Your task to perform on an android device: open sync settings in chrome Image 0: 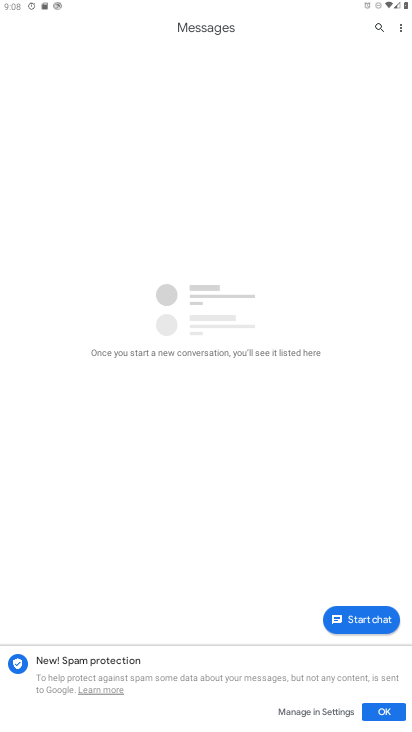
Step 0: press home button
Your task to perform on an android device: open sync settings in chrome Image 1: 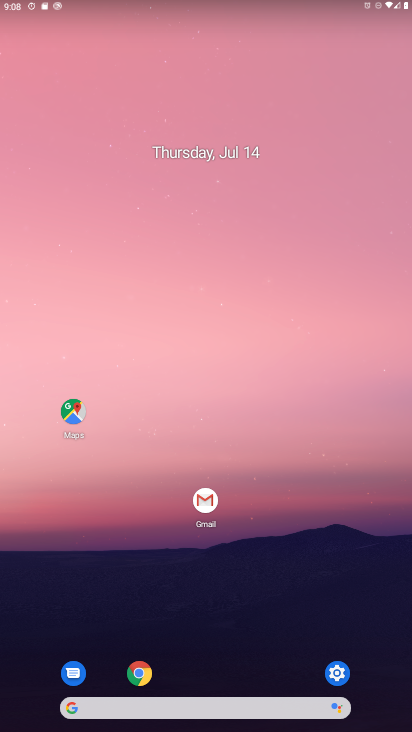
Step 1: click (148, 668)
Your task to perform on an android device: open sync settings in chrome Image 2: 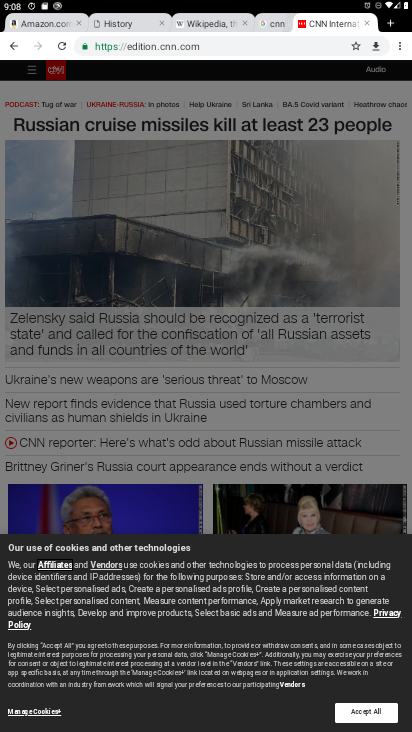
Step 2: click (397, 51)
Your task to perform on an android device: open sync settings in chrome Image 3: 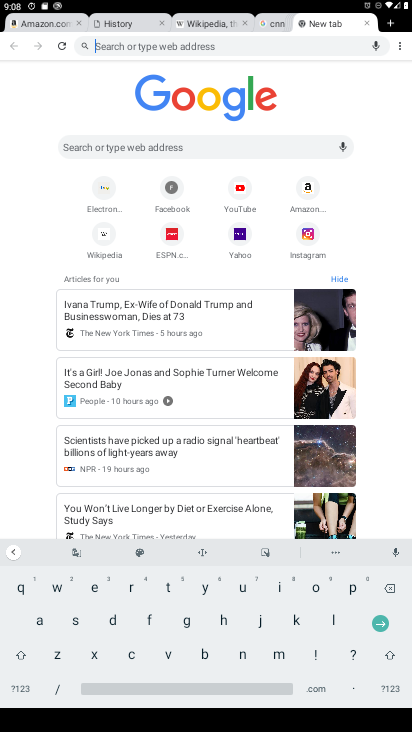
Step 3: click (400, 48)
Your task to perform on an android device: open sync settings in chrome Image 4: 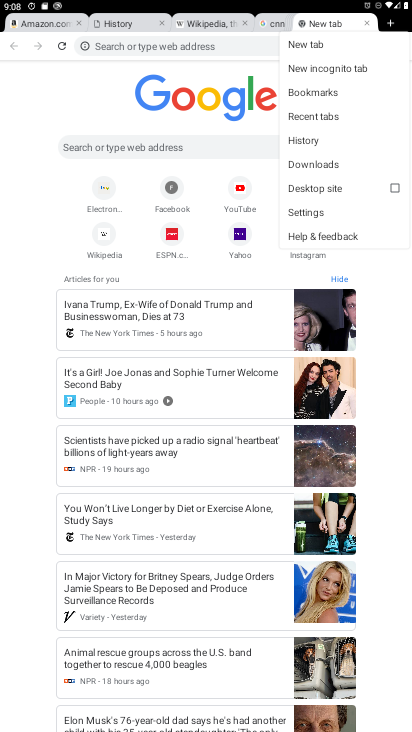
Step 4: click (306, 208)
Your task to perform on an android device: open sync settings in chrome Image 5: 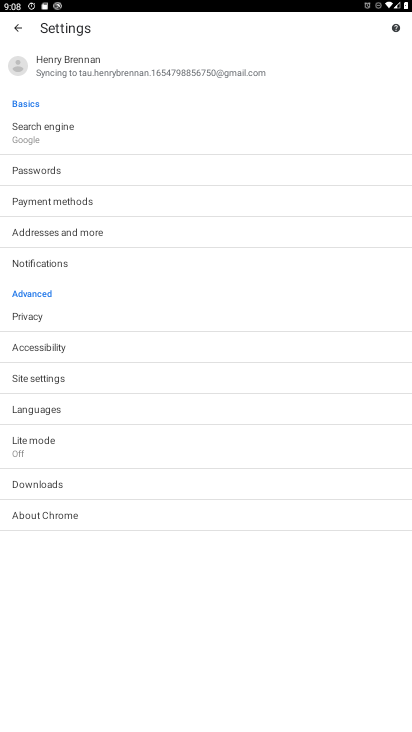
Step 5: click (65, 377)
Your task to perform on an android device: open sync settings in chrome Image 6: 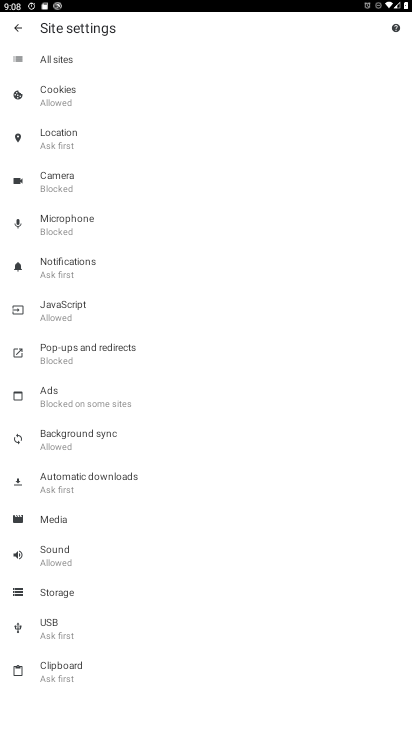
Step 6: click (87, 444)
Your task to perform on an android device: open sync settings in chrome Image 7: 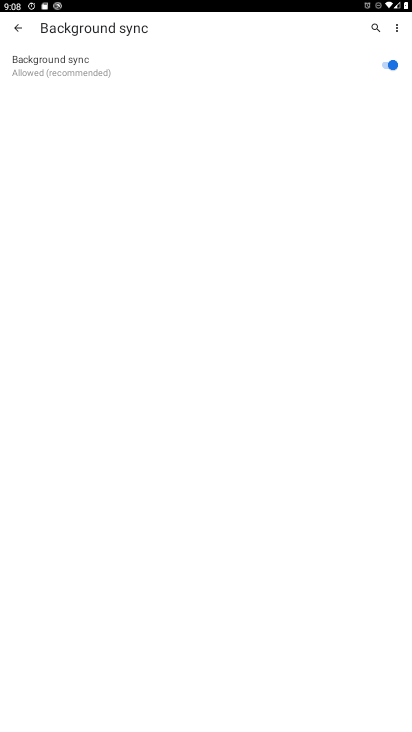
Step 7: task complete